Your task to perform on an android device: set the stopwatch Image 0: 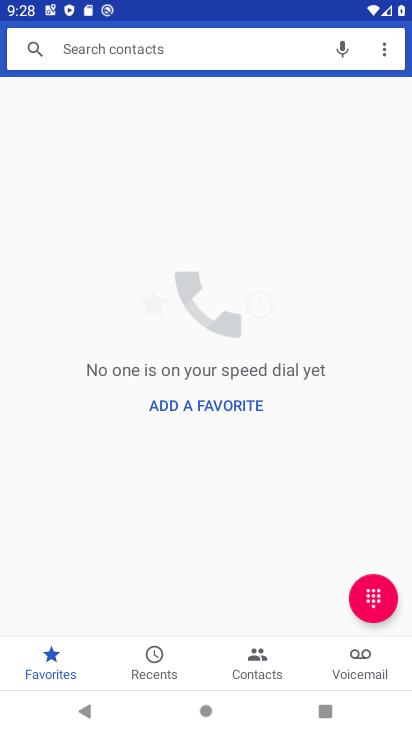
Step 0: press home button
Your task to perform on an android device: set the stopwatch Image 1: 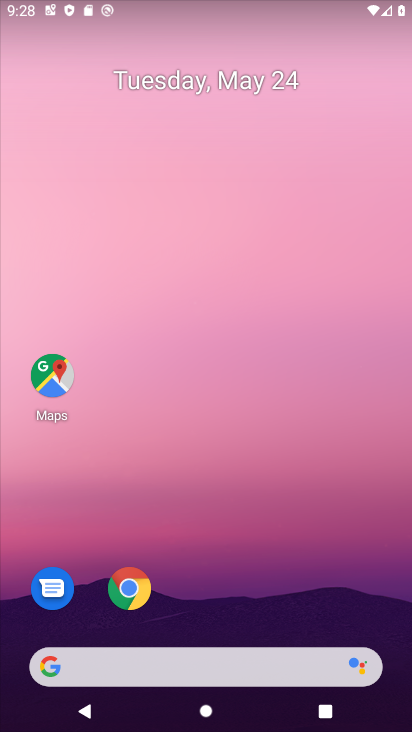
Step 1: drag from (225, 597) to (303, 57)
Your task to perform on an android device: set the stopwatch Image 2: 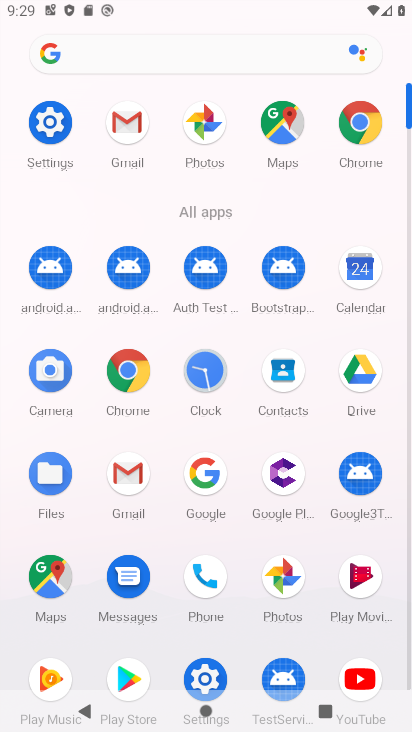
Step 2: click (211, 375)
Your task to perform on an android device: set the stopwatch Image 3: 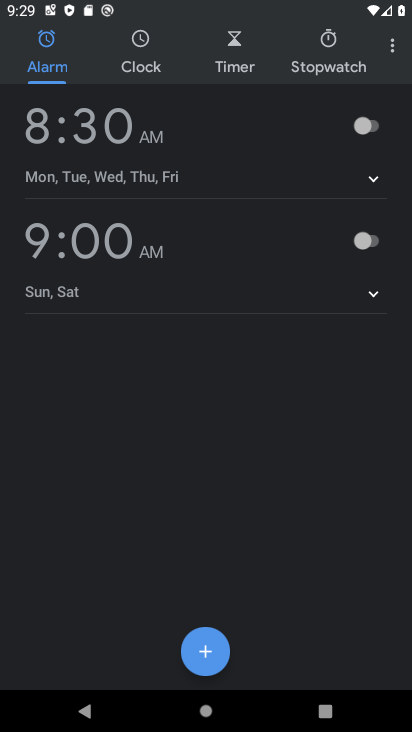
Step 3: click (319, 46)
Your task to perform on an android device: set the stopwatch Image 4: 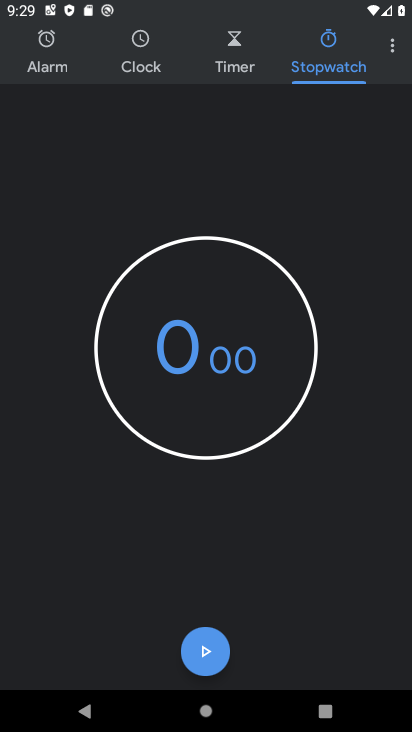
Step 4: click (211, 318)
Your task to perform on an android device: set the stopwatch Image 5: 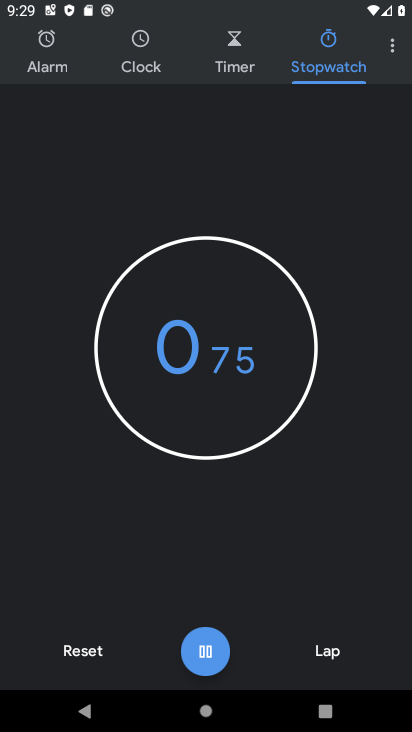
Step 5: click (217, 326)
Your task to perform on an android device: set the stopwatch Image 6: 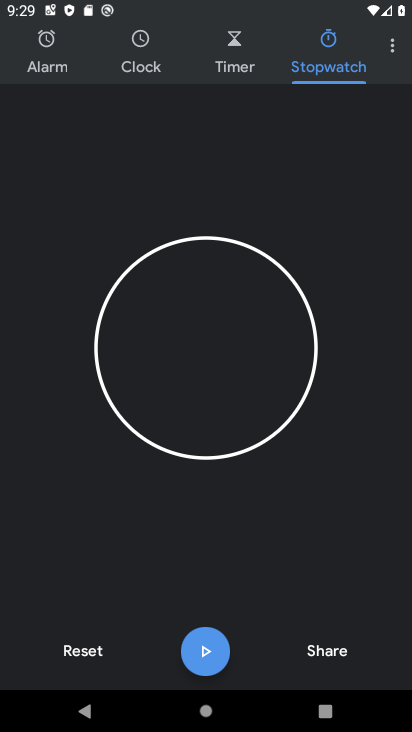
Step 6: task complete